Your task to perform on an android device: Go to calendar. Show me events next week Image 0: 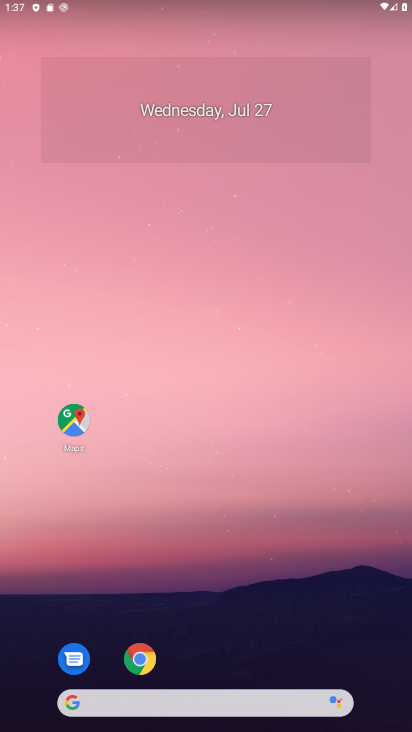
Step 0: drag from (239, 430) to (272, 175)
Your task to perform on an android device: Go to calendar. Show me events next week Image 1: 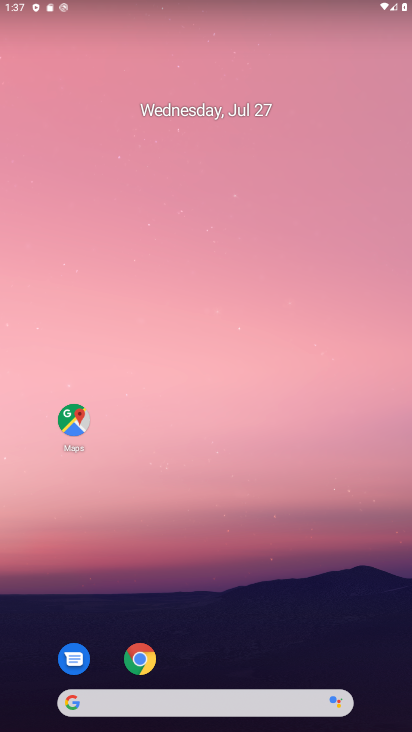
Step 1: drag from (285, 435) to (288, 123)
Your task to perform on an android device: Go to calendar. Show me events next week Image 2: 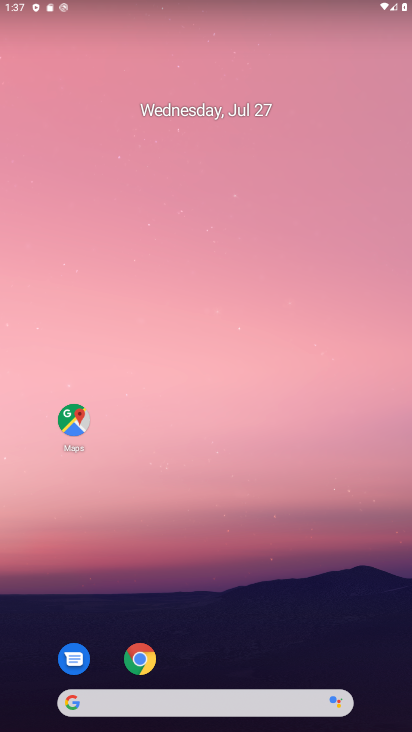
Step 2: drag from (248, 641) to (263, 42)
Your task to perform on an android device: Go to calendar. Show me events next week Image 3: 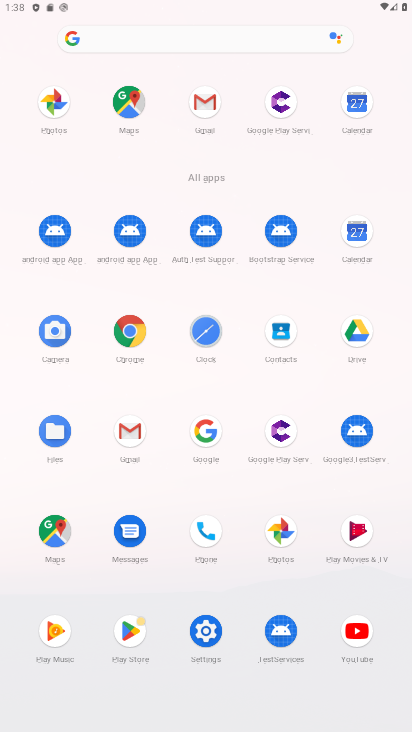
Step 3: click (349, 236)
Your task to perform on an android device: Go to calendar. Show me events next week Image 4: 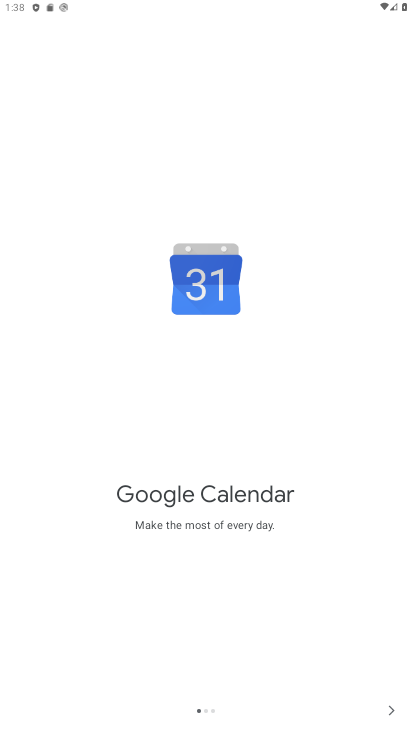
Step 4: click (392, 712)
Your task to perform on an android device: Go to calendar. Show me events next week Image 5: 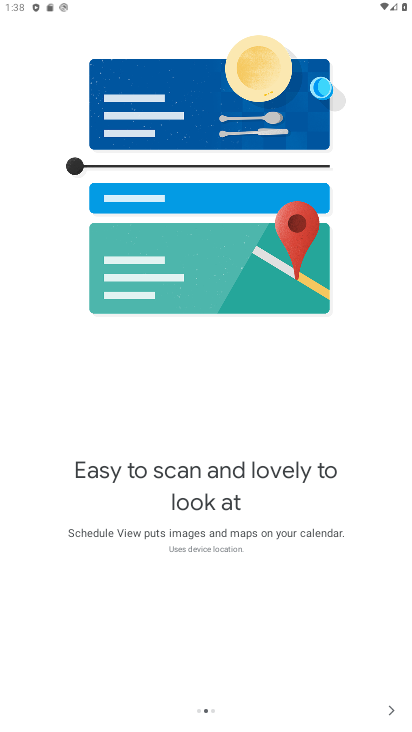
Step 5: click (392, 712)
Your task to perform on an android device: Go to calendar. Show me events next week Image 6: 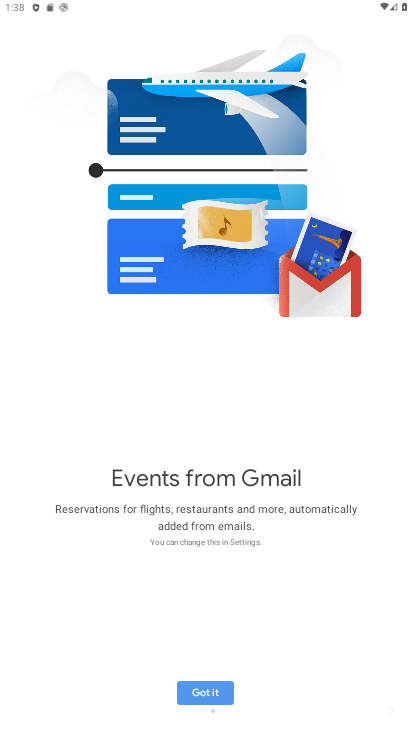
Step 6: click (393, 712)
Your task to perform on an android device: Go to calendar. Show me events next week Image 7: 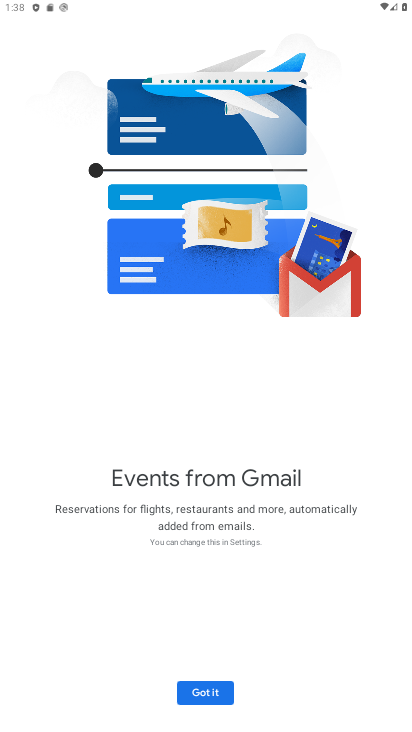
Step 7: click (213, 686)
Your task to perform on an android device: Go to calendar. Show me events next week Image 8: 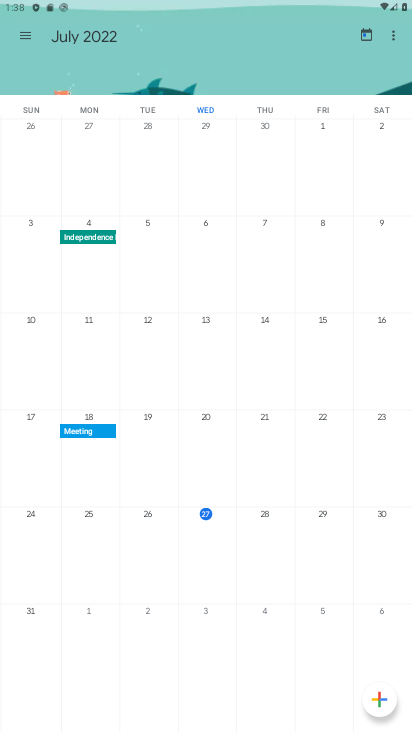
Step 8: task complete